Your task to perform on an android device: turn off picture-in-picture Image 0: 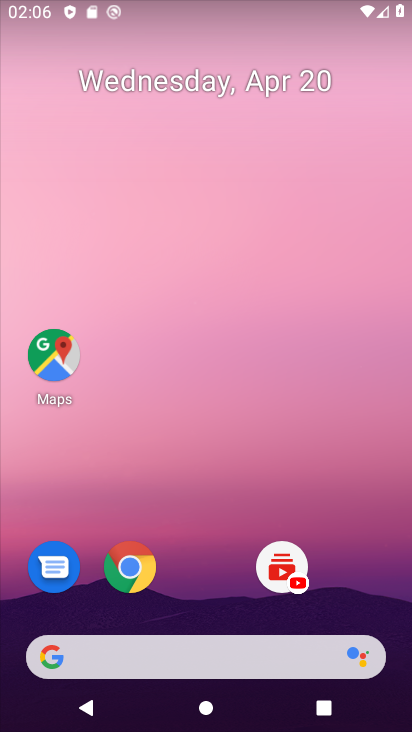
Step 0: drag from (195, 603) to (255, 231)
Your task to perform on an android device: turn off picture-in-picture Image 1: 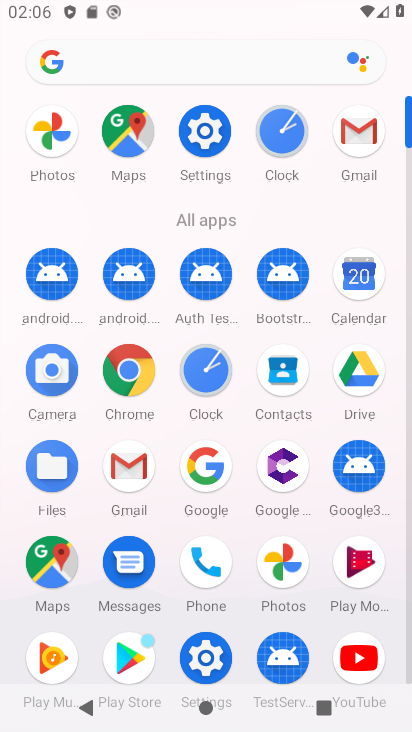
Step 1: click (203, 652)
Your task to perform on an android device: turn off picture-in-picture Image 2: 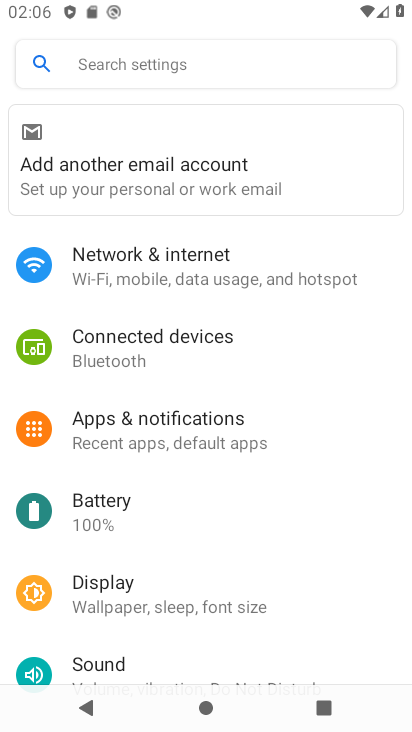
Step 2: click (228, 439)
Your task to perform on an android device: turn off picture-in-picture Image 3: 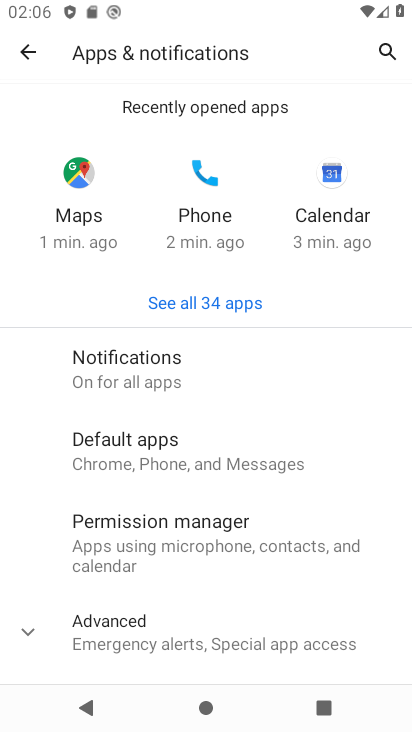
Step 3: drag from (245, 622) to (320, 319)
Your task to perform on an android device: turn off picture-in-picture Image 4: 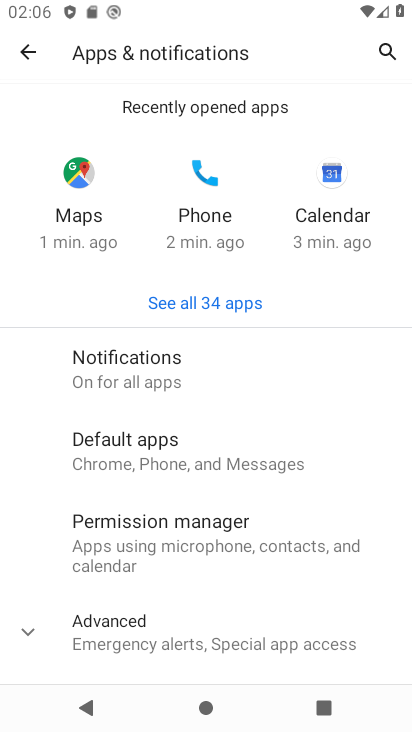
Step 4: click (351, 610)
Your task to perform on an android device: turn off picture-in-picture Image 5: 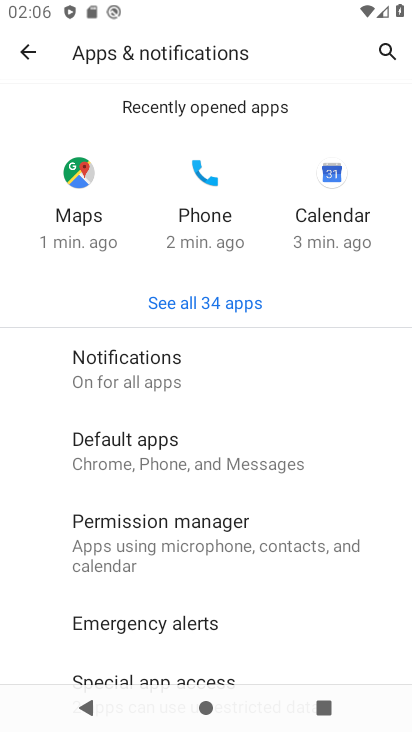
Step 5: drag from (257, 634) to (250, 197)
Your task to perform on an android device: turn off picture-in-picture Image 6: 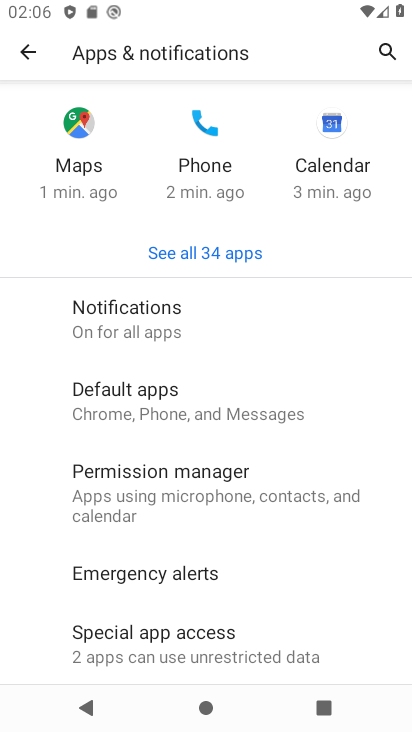
Step 6: click (189, 630)
Your task to perform on an android device: turn off picture-in-picture Image 7: 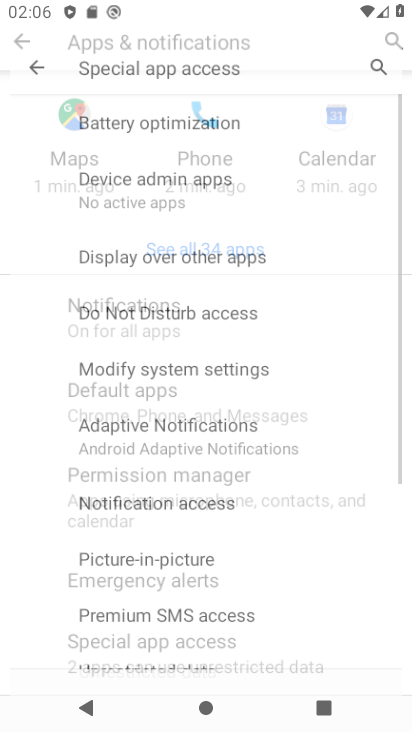
Step 7: drag from (188, 625) to (302, 240)
Your task to perform on an android device: turn off picture-in-picture Image 8: 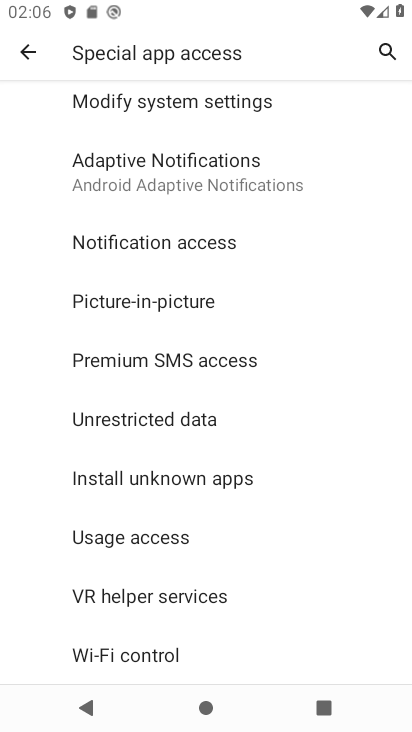
Step 8: click (150, 323)
Your task to perform on an android device: turn off picture-in-picture Image 9: 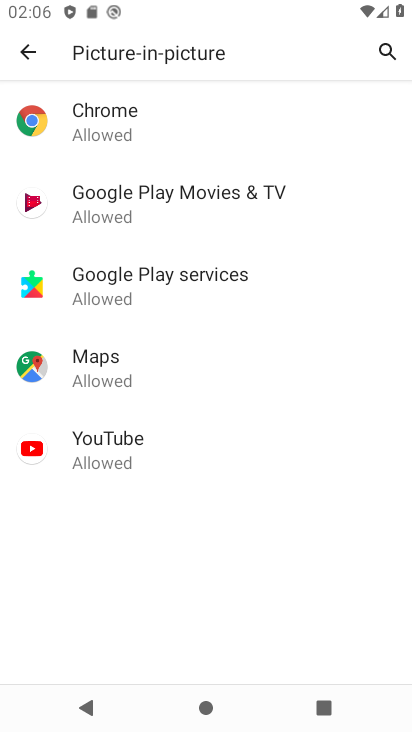
Step 9: task complete